Your task to perform on an android device: Is it going to rain tomorrow? Image 0: 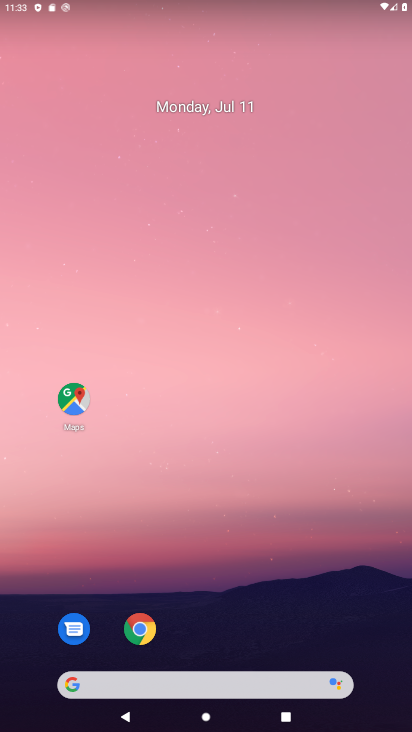
Step 0: click (228, 688)
Your task to perform on an android device: Is it going to rain tomorrow? Image 1: 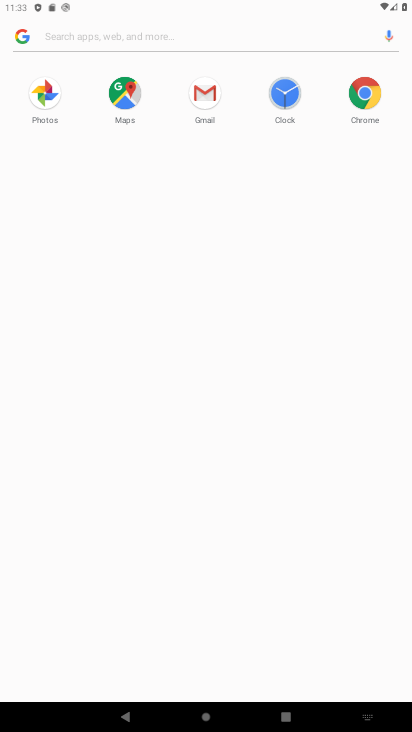
Step 1: type "weather"
Your task to perform on an android device: Is it going to rain tomorrow? Image 2: 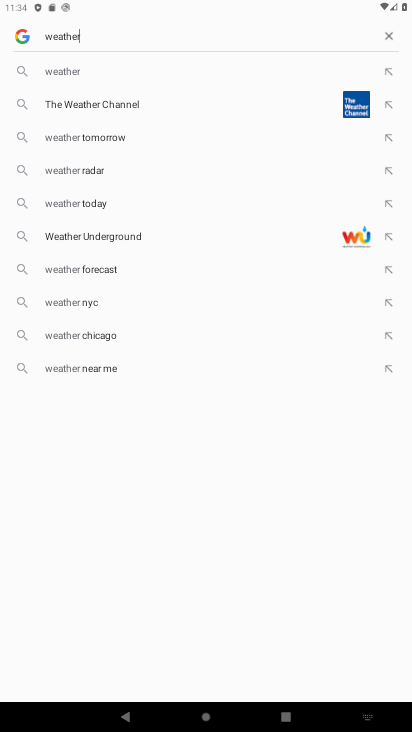
Step 2: click (87, 71)
Your task to perform on an android device: Is it going to rain tomorrow? Image 3: 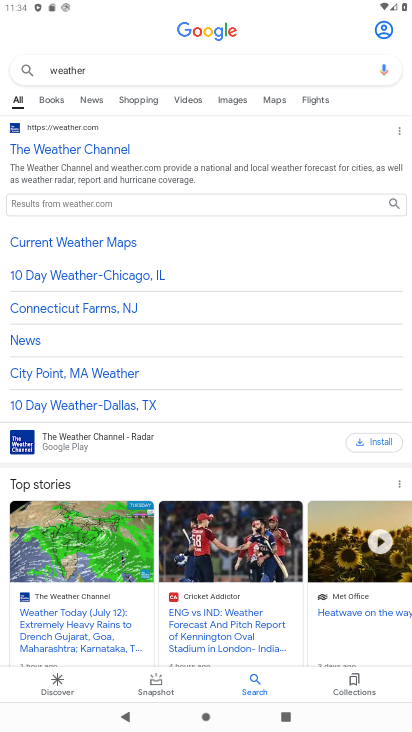
Step 3: task complete